Your task to perform on an android device: turn off priority inbox in the gmail app Image 0: 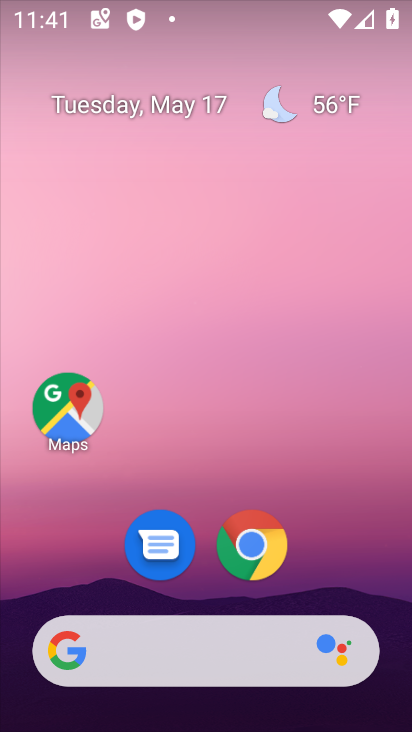
Step 0: drag from (346, 333) to (300, 3)
Your task to perform on an android device: turn off priority inbox in the gmail app Image 1: 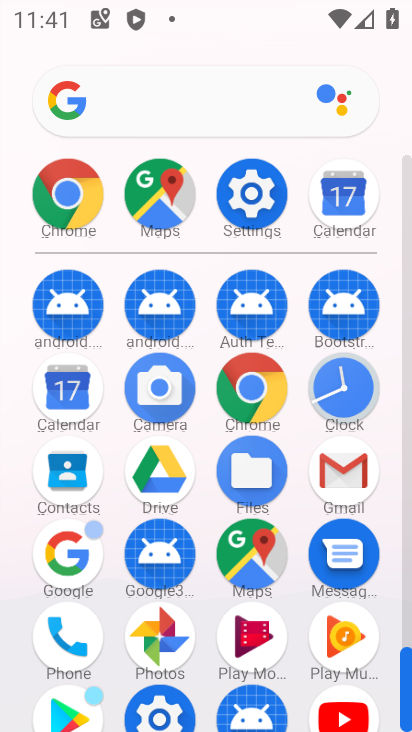
Step 1: click (356, 480)
Your task to perform on an android device: turn off priority inbox in the gmail app Image 2: 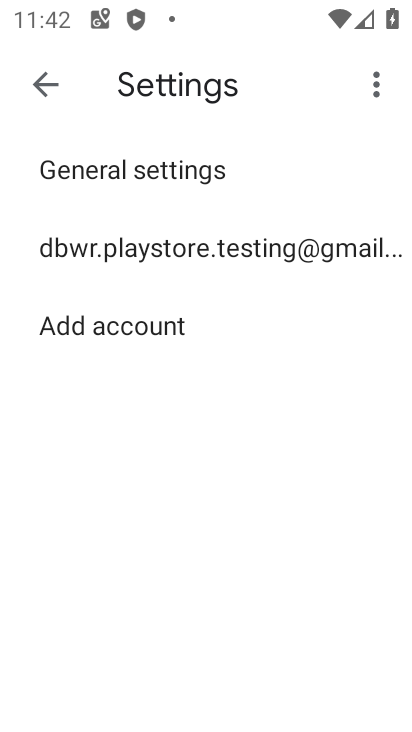
Step 2: click (230, 243)
Your task to perform on an android device: turn off priority inbox in the gmail app Image 3: 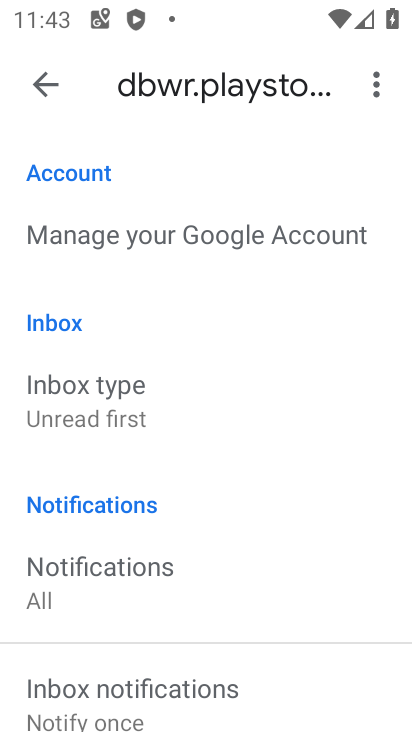
Step 3: click (149, 410)
Your task to perform on an android device: turn off priority inbox in the gmail app Image 4: 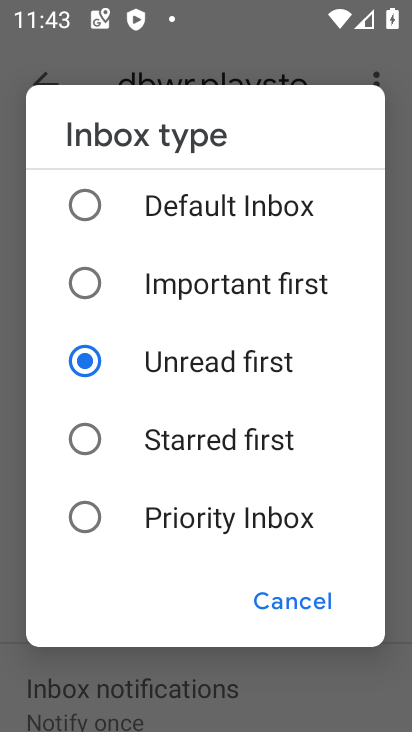
Step 4: task complete